Your task to perform on an android device: Open notification settings Image 0: 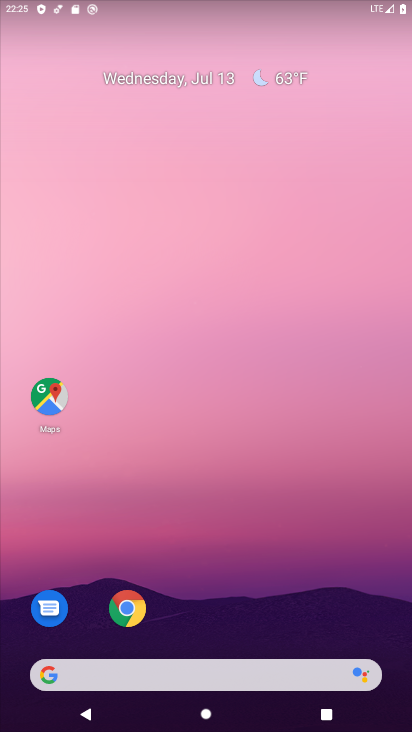
Step 0: drag from (238, 551) to (324, 99)
Your task to perform on an android device: Open notification settings Image 1: 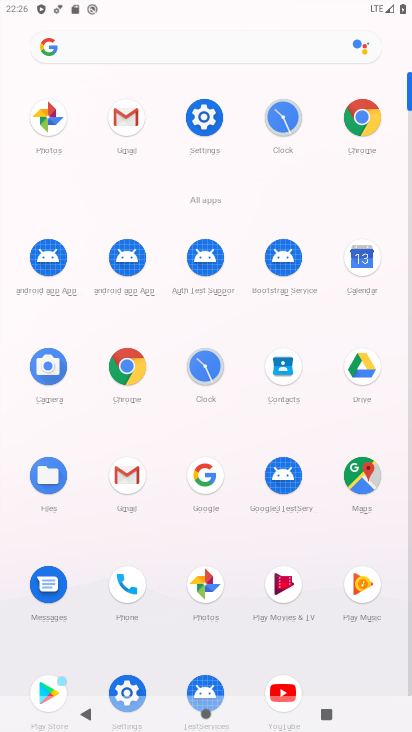
Step 1: click (129, 694)
Your task to perform on an android device: Open notification settings Image 2: 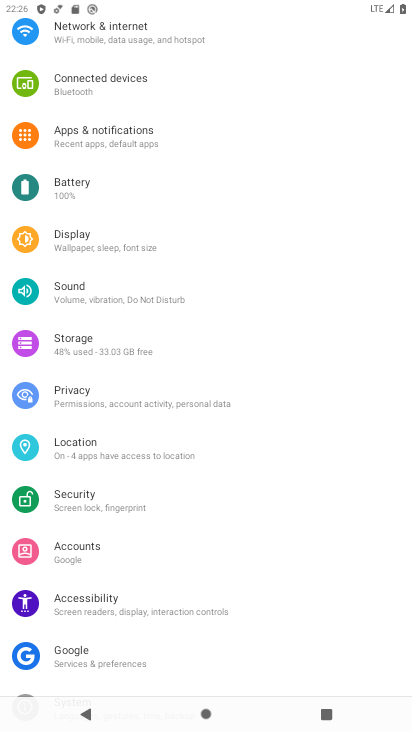
Step 2: click (124, 140)
Your task to perform on an android device: Open notification settings Image 3: 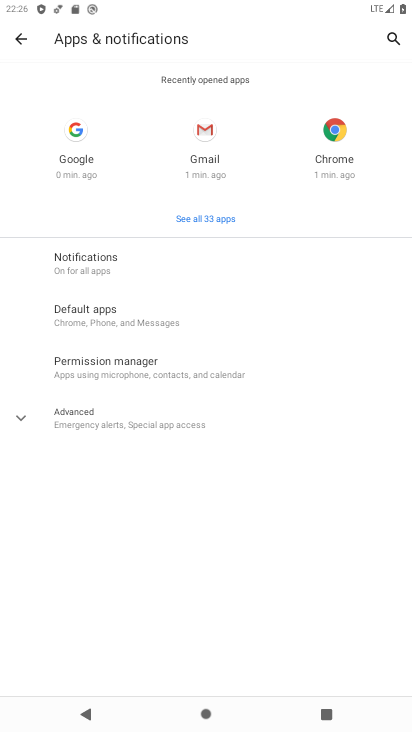
Step 3: click (118, 258)
Your task to perform on an android device: Open notification settings Image 4: 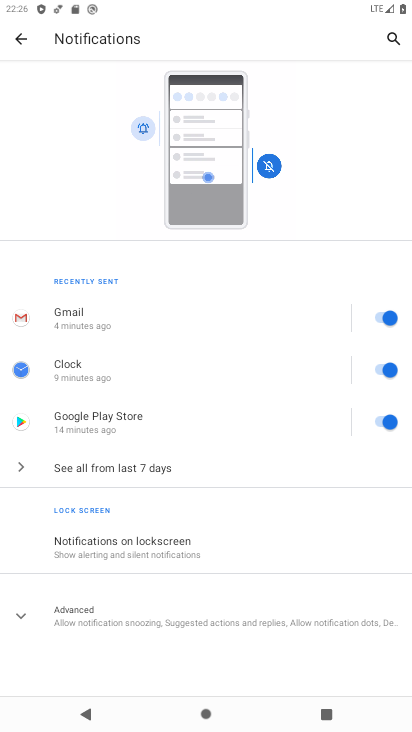
Step 4: task complete